Your task to perform on an android device: install app "Adobe Acrobat Reader" Image 0: 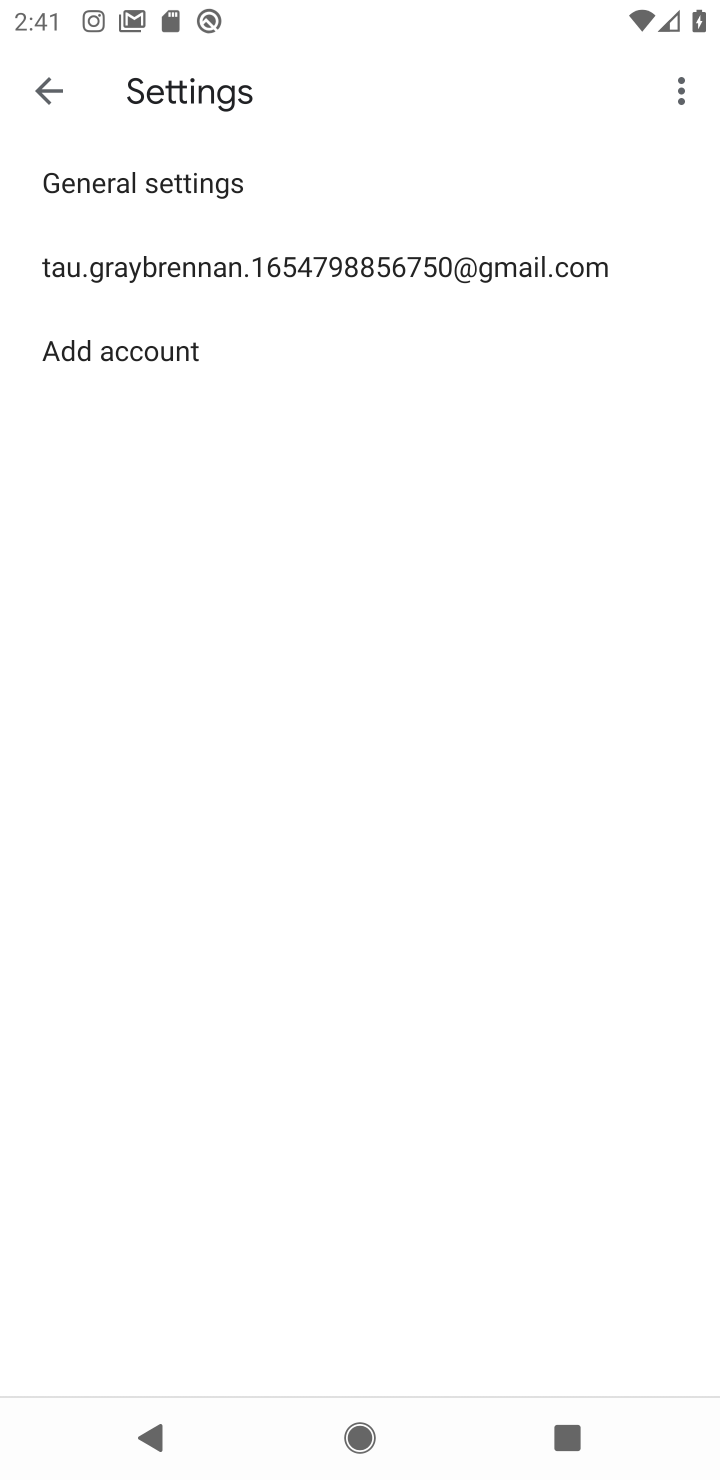
Step 0: press home button
Your task to perform on an android device: install app "Adobe Acrobat Reader" Image 1: 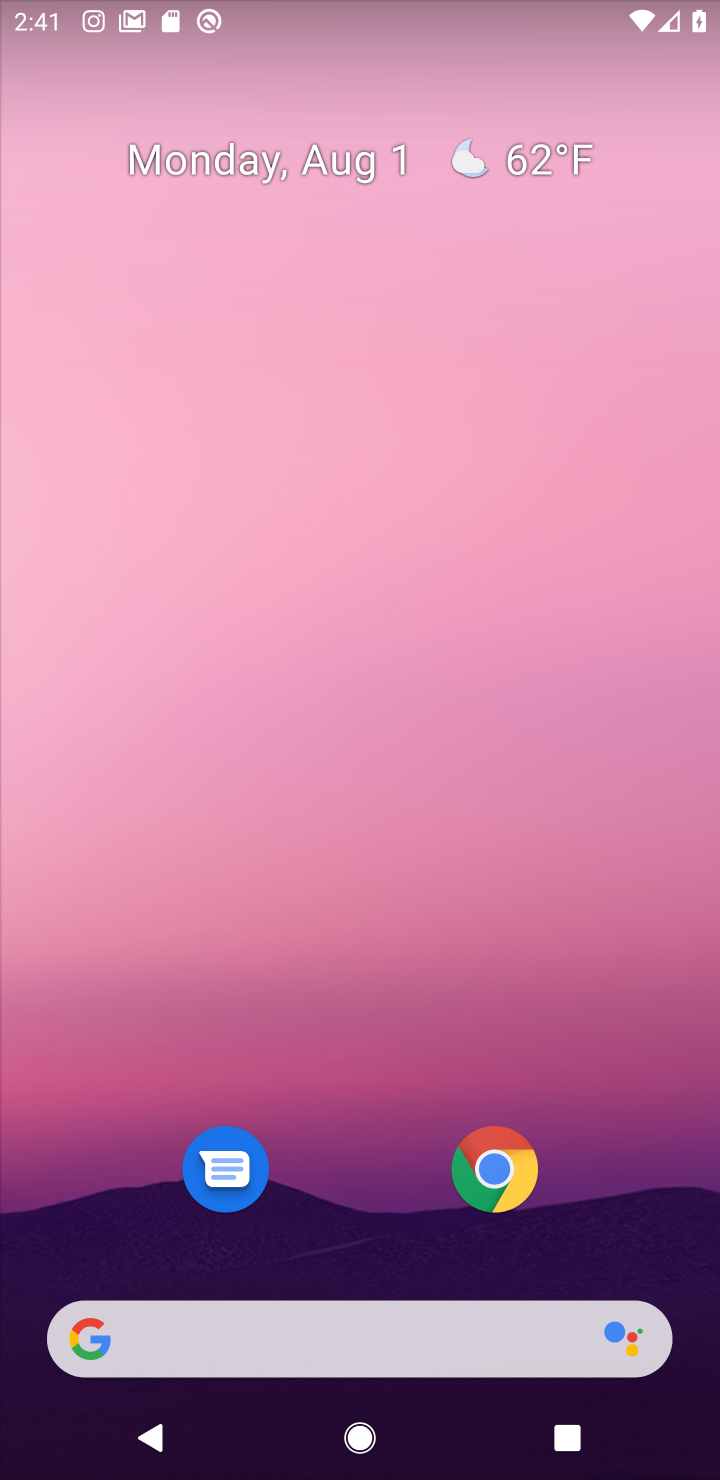
Step 1: drag from (322, 1108) to (432, 216)
Your task to perform on an android device: install app "Adobe Acrobat Reader" Image 2: 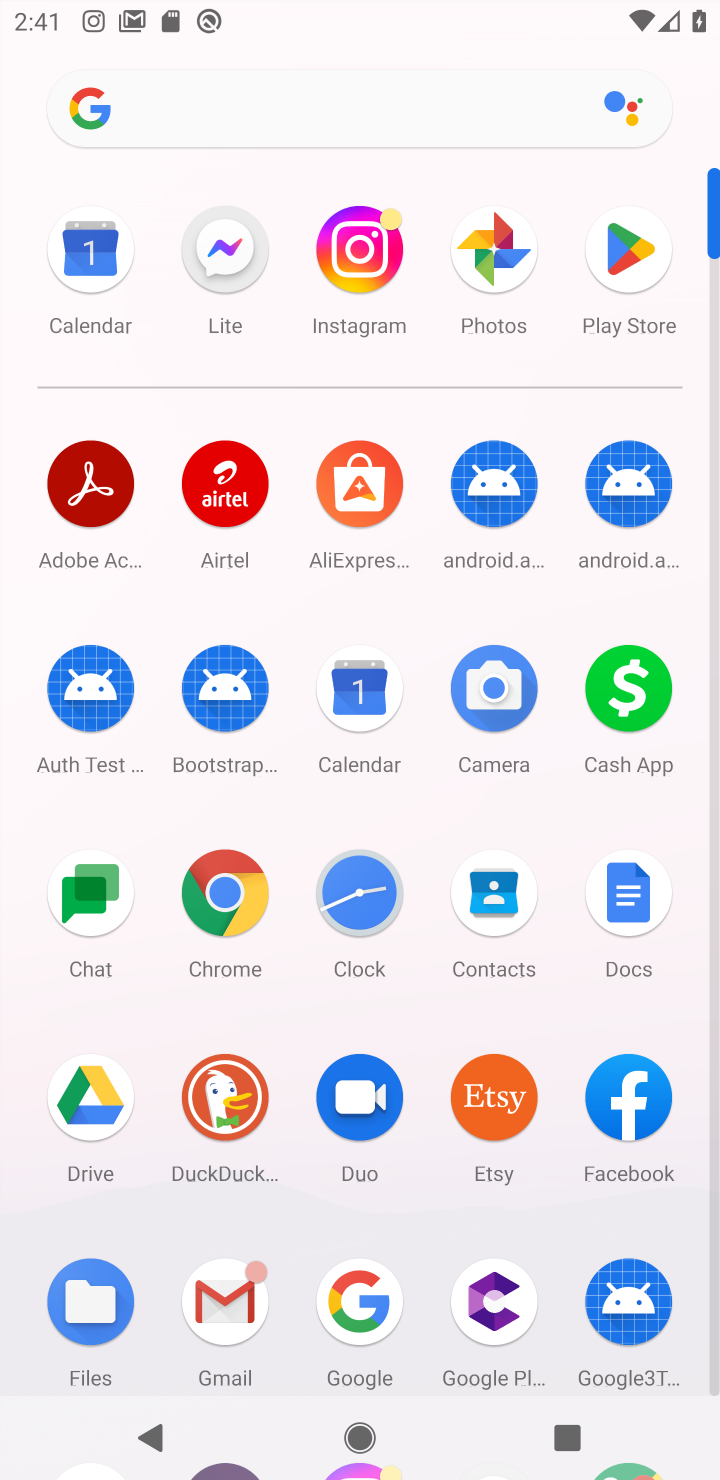
Step 2: click (639, 307)
Your task to perform on an android device: install app "Adobe Acrobat Reader" Image 3: 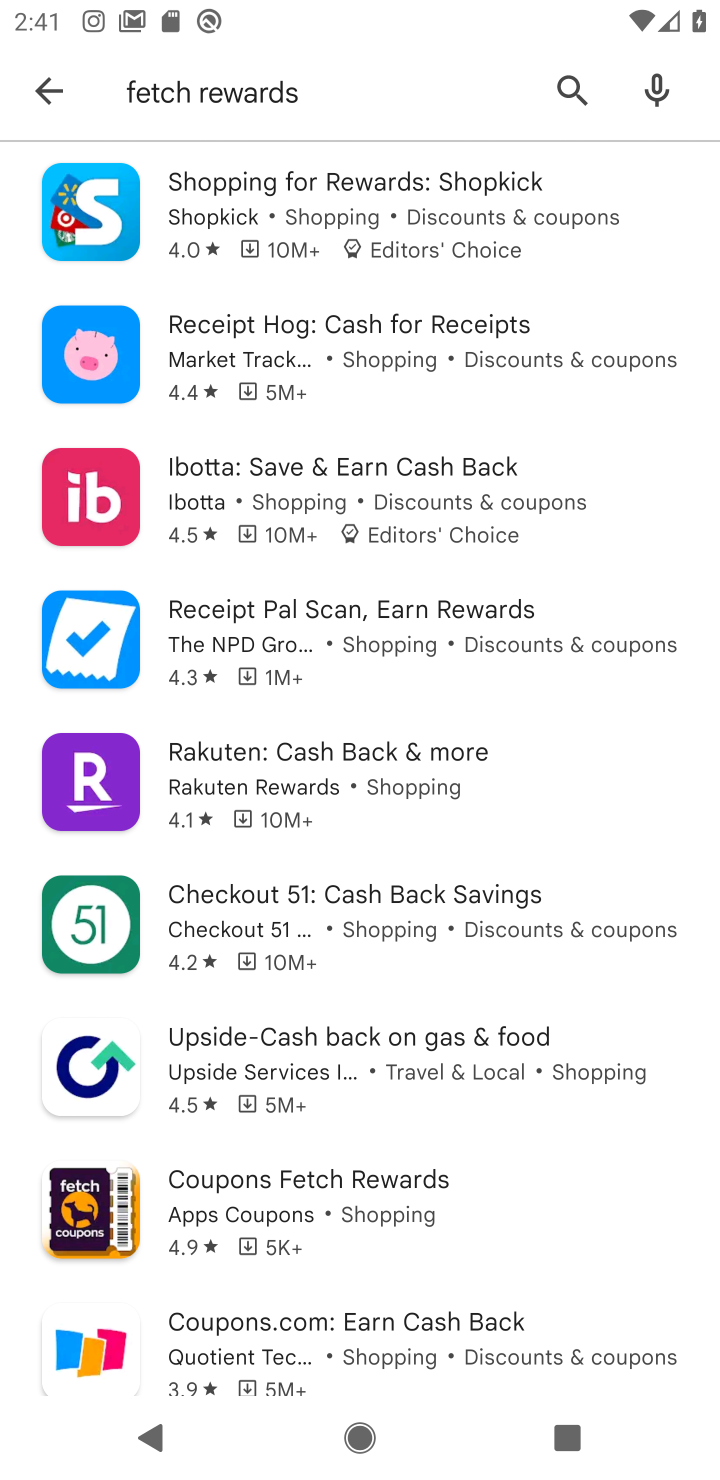
Step 3: click (49, 104)
Your task to perform on an android device: install app "Adobe Acrobat Reader" Image 4: 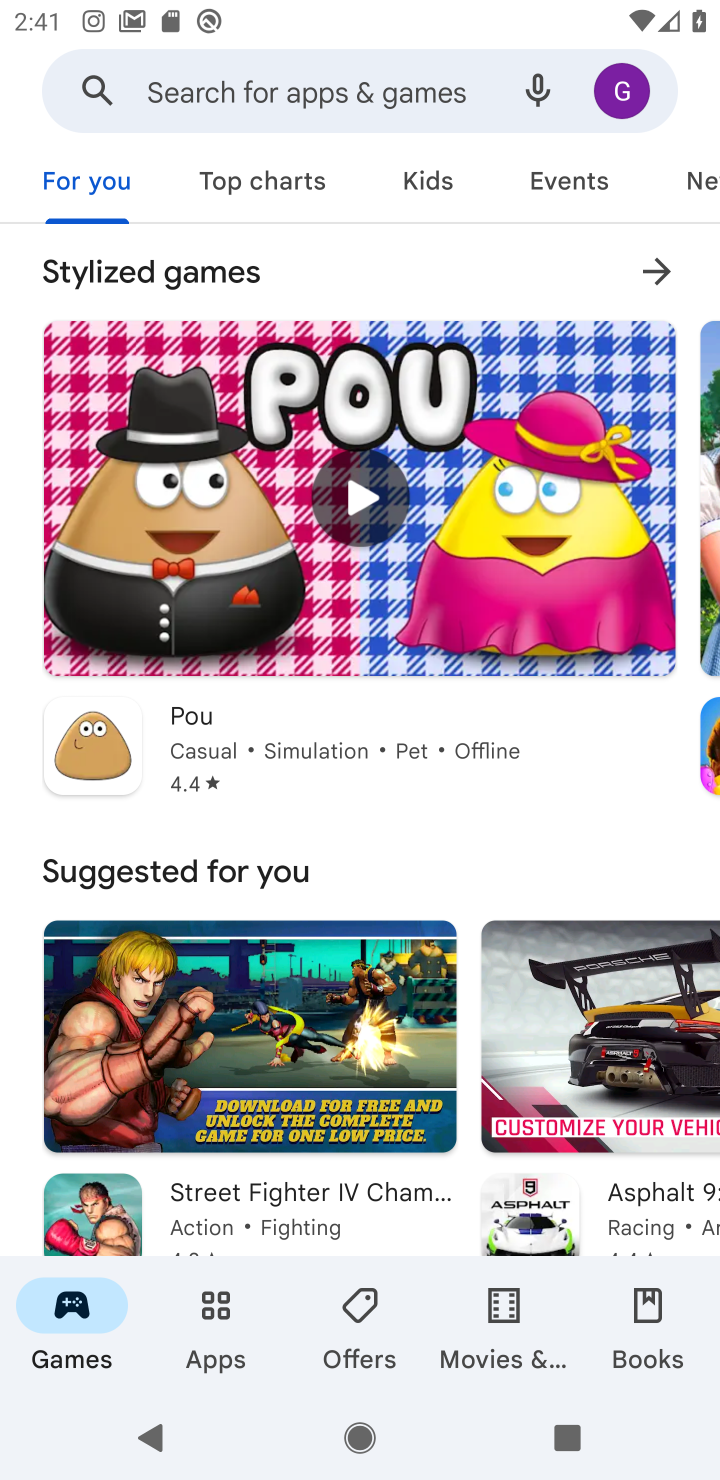
Step 4: click (251, 102)
Your task to perform on an android device: install app "Adobe Acrobat Reader" Image 5: 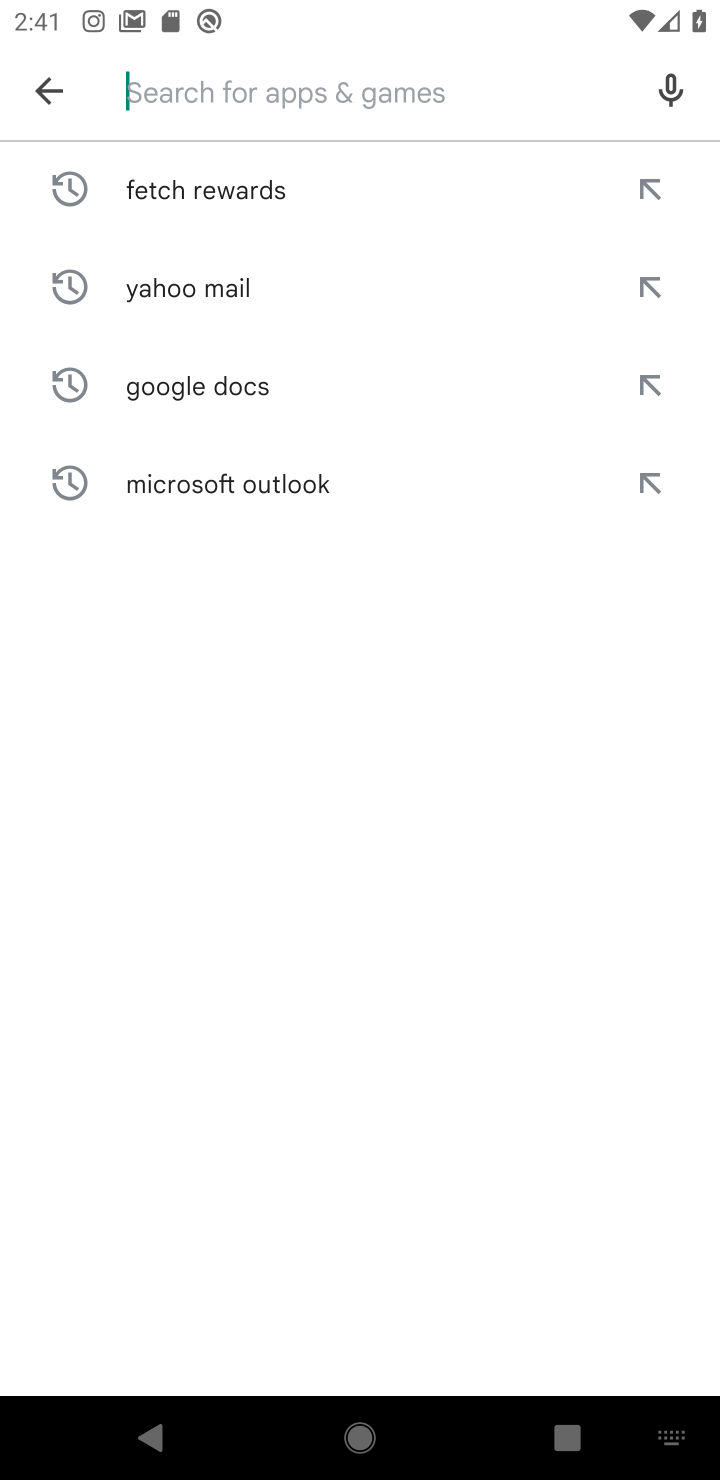
Step 5: type "Adobe Acrobat Reader"
Your task to perform on an android device: install app "Adobe Acrobat Reader" Image 6: 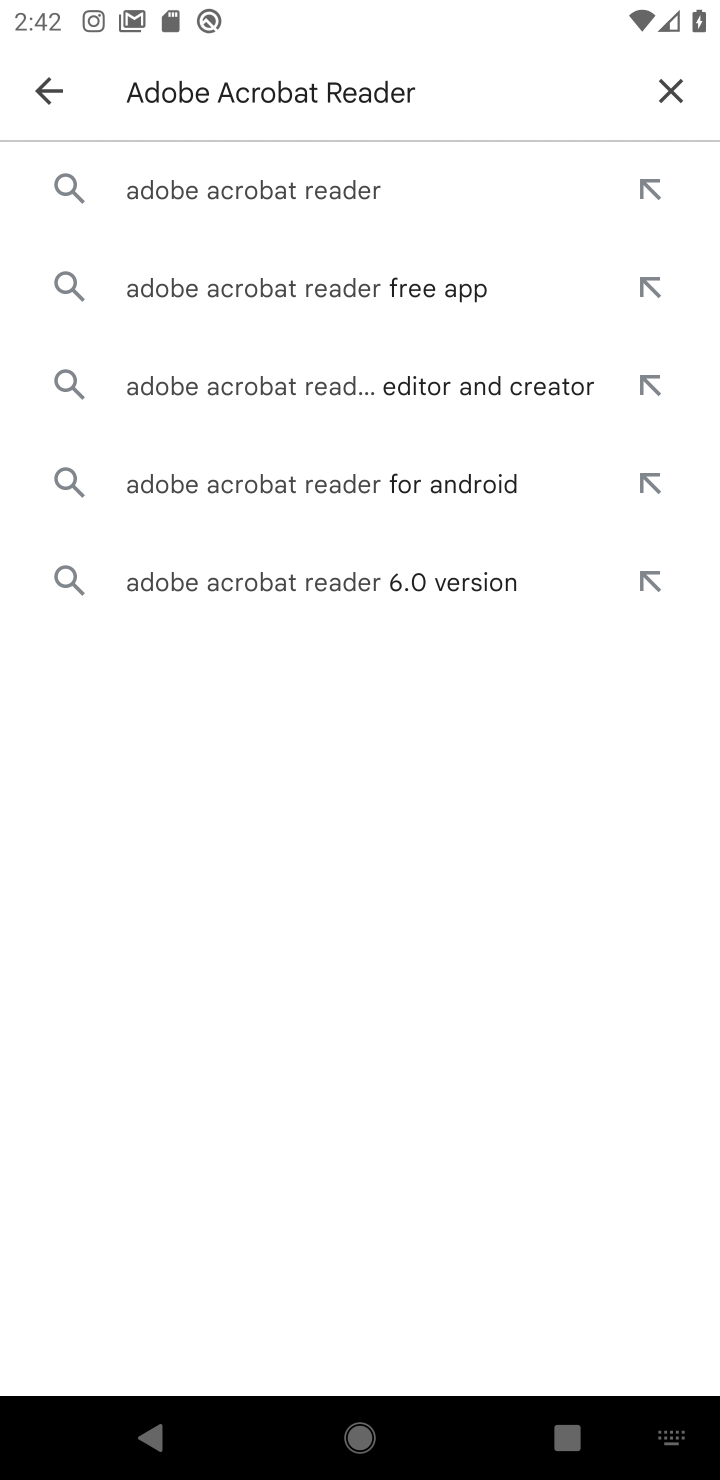
Step 6: click (360, 201)
Your task to perform on an android device: install app "Adobe Acrobat Reader" Image 7: 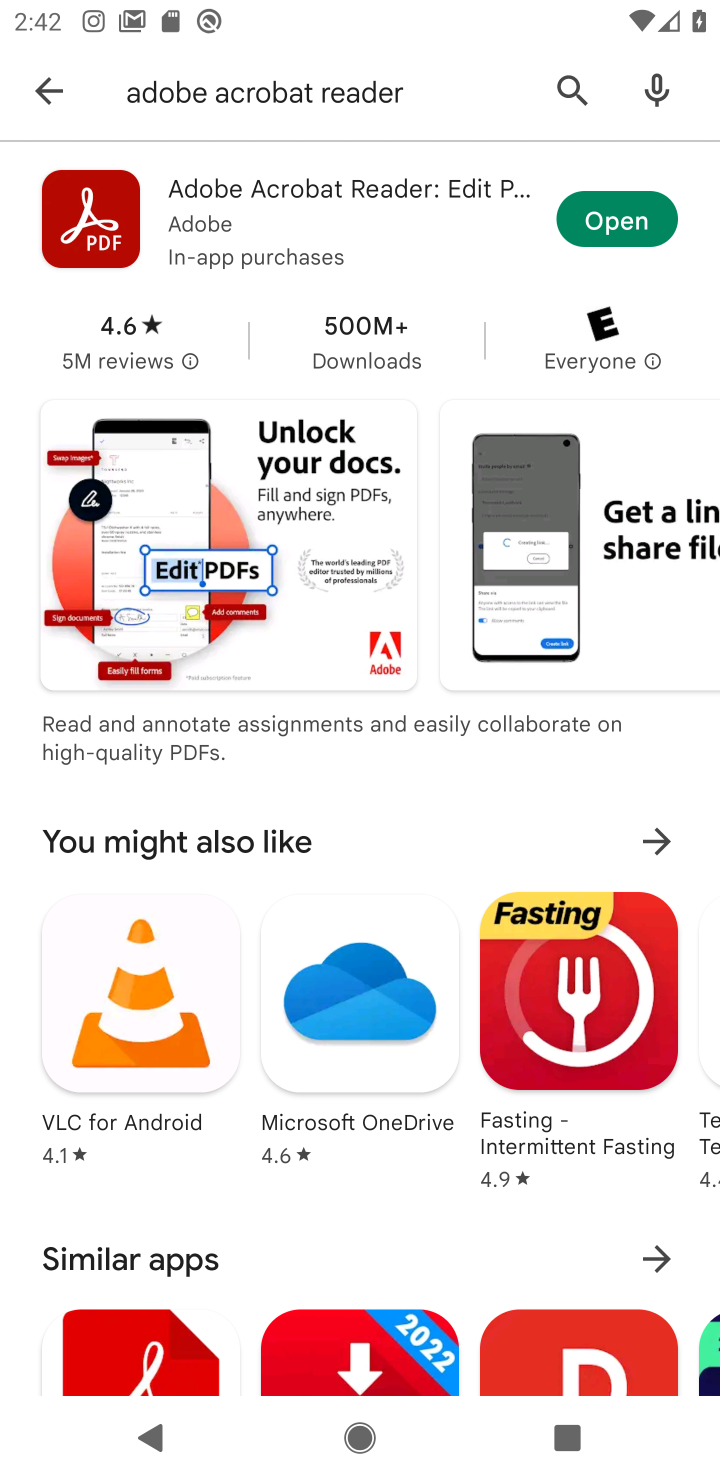
Step 7: task complete